Your task to perform on an android device: turn on sleep mode Image 0: 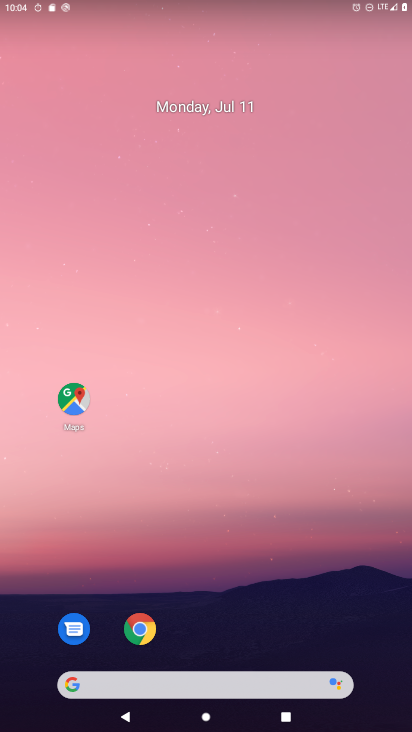
Step 0: drag from (269, 10) to (250, 565)
Your task to perform on an android device: turn on sleep mode Image 1: 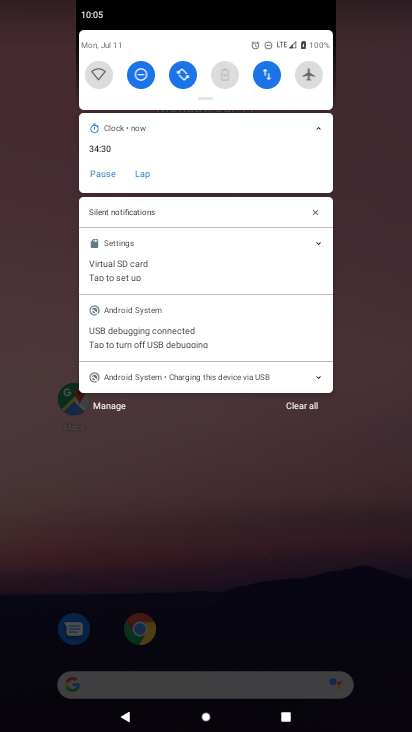
Step 1: drag from (192, 37) to (244, 572)
Your task to perform on an android device: turn on sleep mode Image 2: 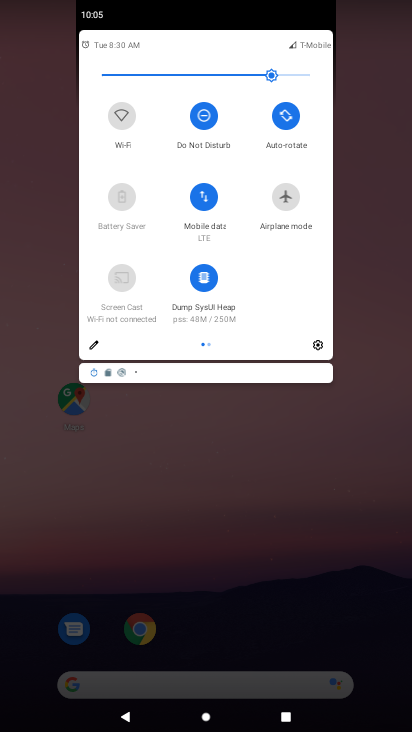
Step 2: click (312, 344)
Your task to perform on an android device: turn on sleep mode Image 3: 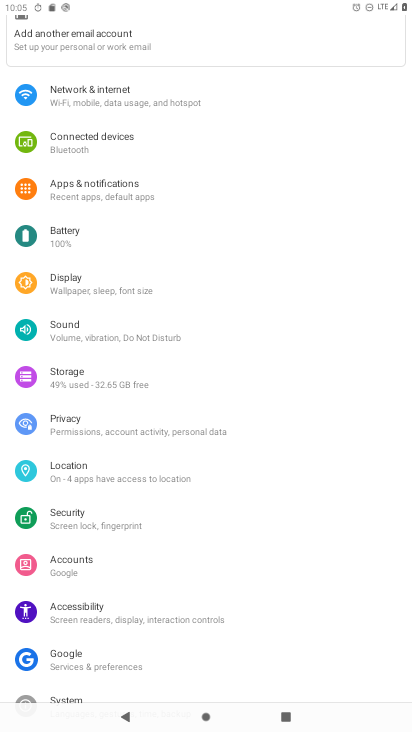
Step 3: task complete